Your task to perform on an android device: Go to sound settings Image 0: 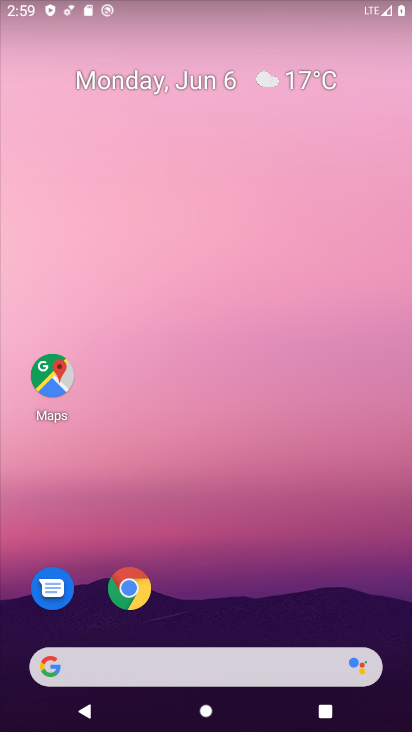
Step 0: drag from (236, 649) to (201, 135)
Your task to perform on an android device: Go to sound settings Image 1: 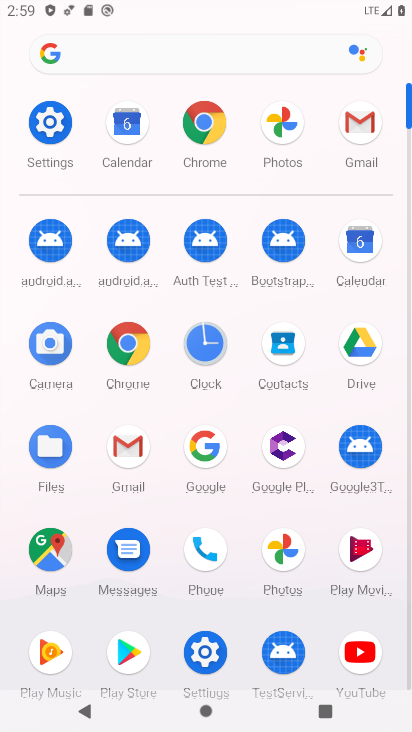
Step 1: click (52, 120)
Your task to perform on an android device: Go to sound settings Image 2: 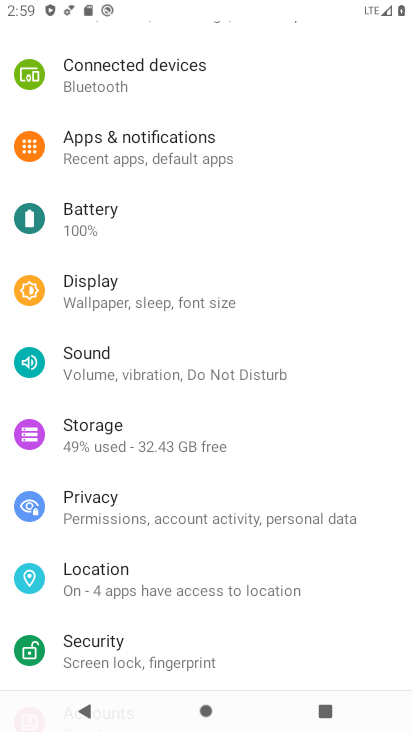
Step 2: click (168, 371)
Your task to perform on an android device: Go to sound settings Image 3: 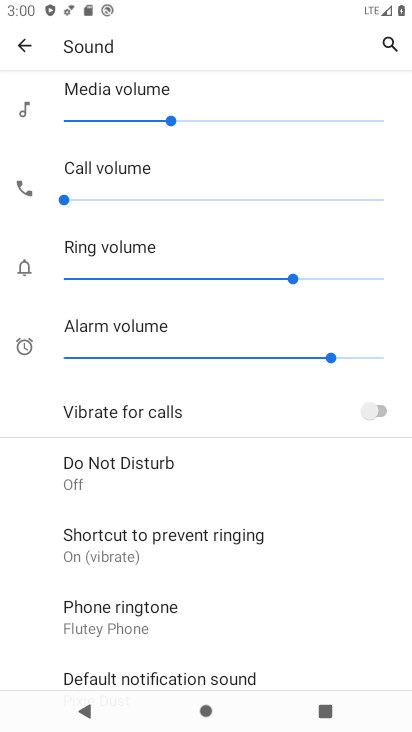
Step 3: task complete